Your task to perform on an android device: check google app version Image 0: 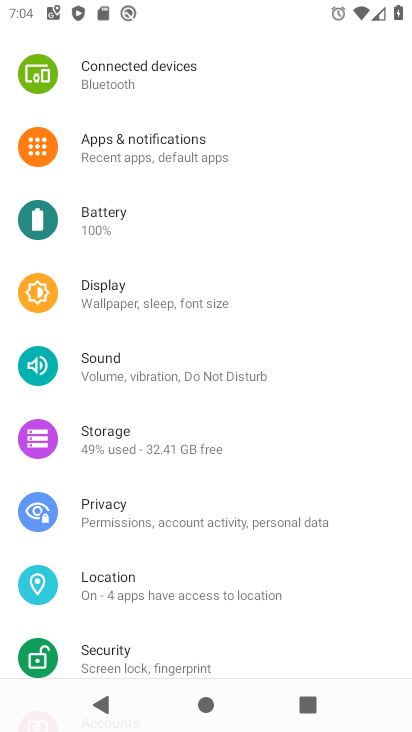
Step 0: press home button
Your task to perform on an android device: check google app version Image 1: 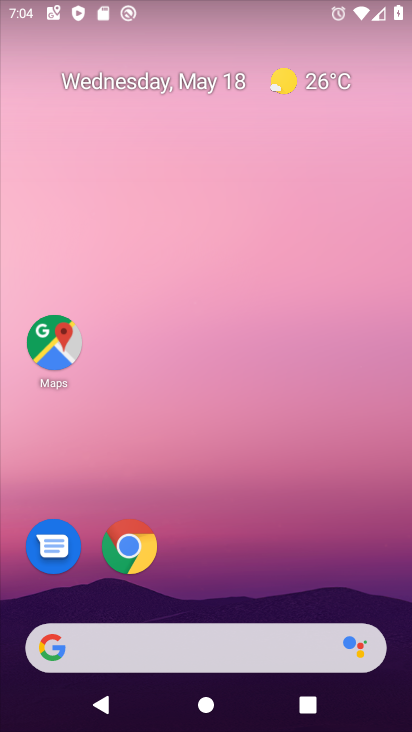
Step 1: drag from (381, 605) to (280, 72)
Your task to perform on an android device: check google app version Image 2: 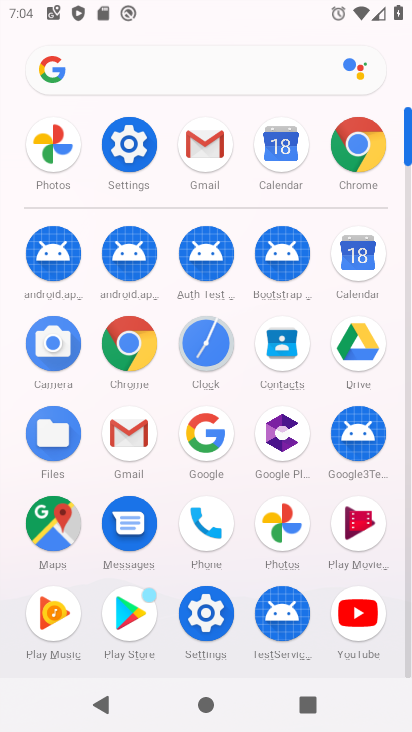
Step 2: click (196, 449)
Your task to perform on an android device: check google app version Image 3: 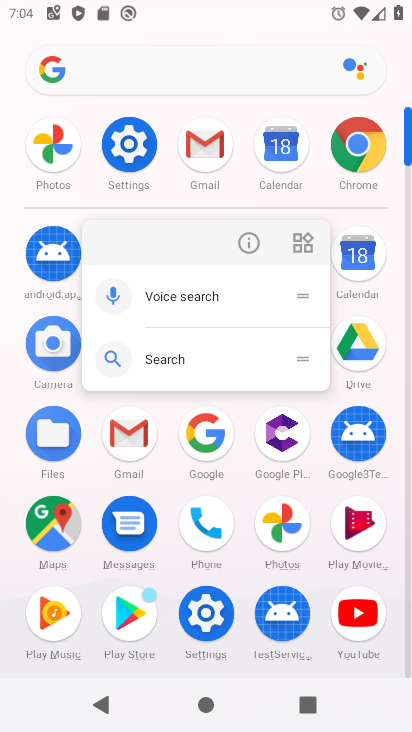
Step 3: click (251, 242)
Your task to perform on an android device: check google app version Image 4: 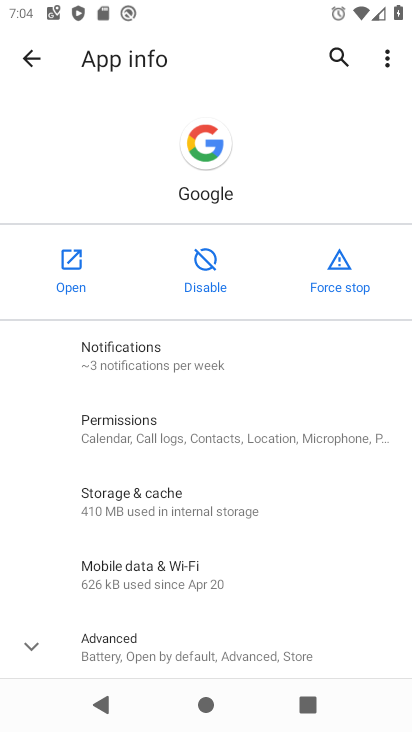
Step 4: drag from (197, 624) to (135, 55)
Your task to perform on an android device: check google app version Image 5: 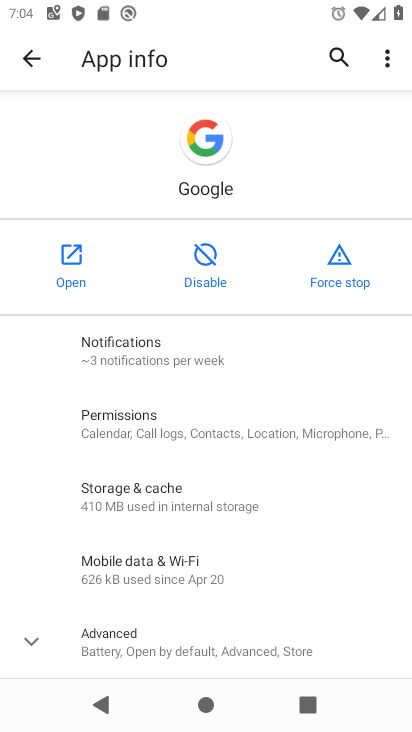
Step 5: click (109, 632)
Your task to perform on an android device: check google app version Image 6: 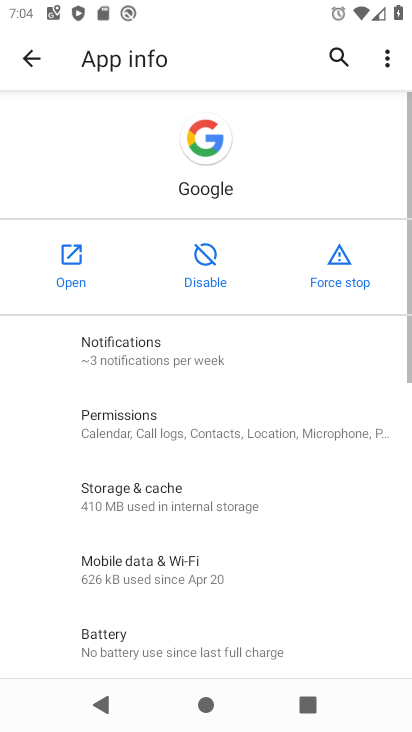
Step 6: task complete